Your task to perform on an android device: open app "Facebook Lite" (install if not already installed) Image 0: 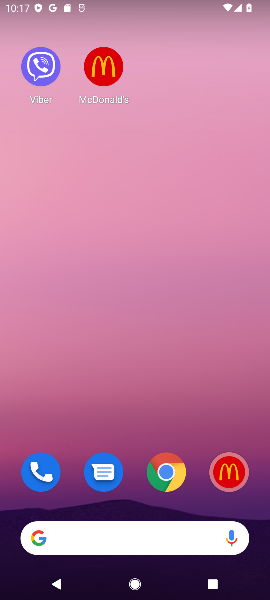
Step 0: drag from (124, 464) to (100, 0)
Your task to perform on an android device: open app "Facebook Lite" (install if not already installed) Image 1: 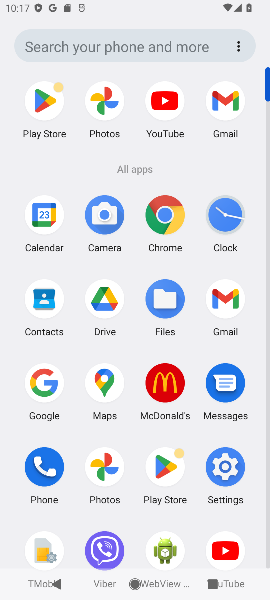
Step 1: click (48, 105)
Your task to perform on an android device: open app "Facebook Lite" (install if not already installed) Image 2: 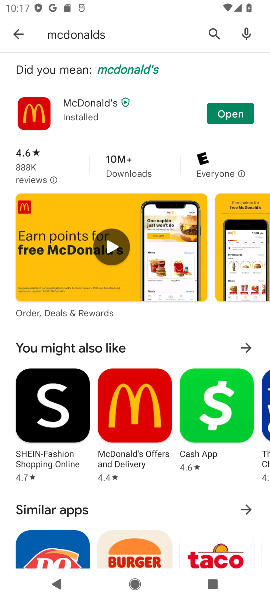
Step 2: click (116, 33)
Your task to perform on an android device: open app "Facebook Lite" (install if not already installed) Image 3: 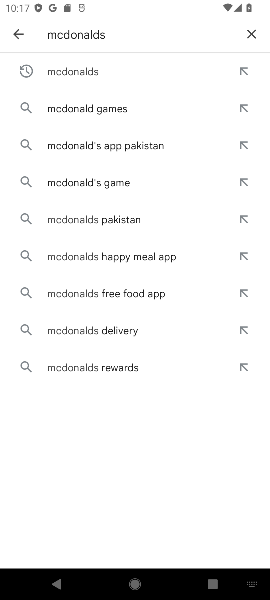
Step 3: click (251, 32)
Your task to perform on an android device: open app "Facebook Lite" (install if not already installed) Image 4: 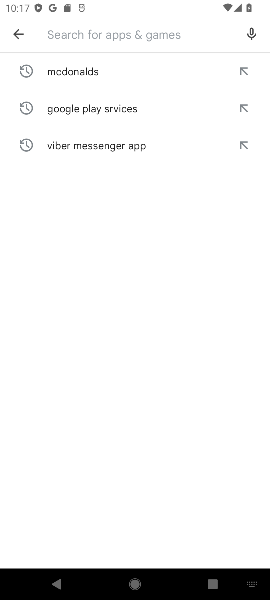
Step 4: type "facebook lite"
Your task to perform on an android device: open app "Facebook Lite" (install if not already installed) Image 5: 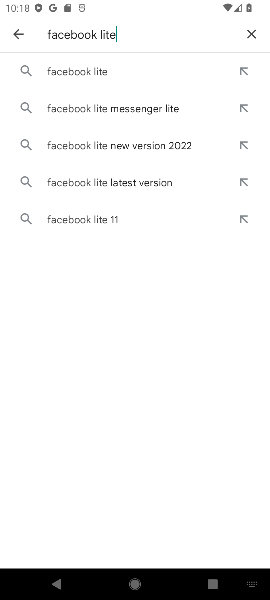
Step 5: click (67, 61)
Your task to perform on an android device: open app "Facebook Lite" (install if not already installed) Image 6: 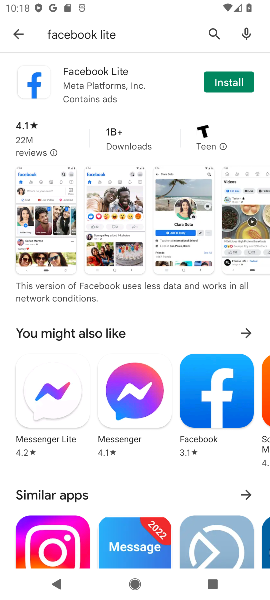
Step 6: click (233, 85)
Your task to perform on an android device: open app "Facebook Lite" (install if not already installed) Image 7: 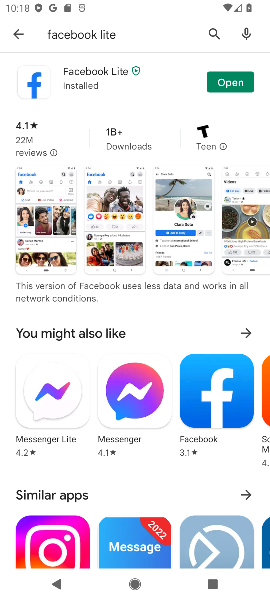
Step 7: click (227, 85)
Your task to perform on an android device: open app "Facebook Lite" (install if not already installed) Image 8: 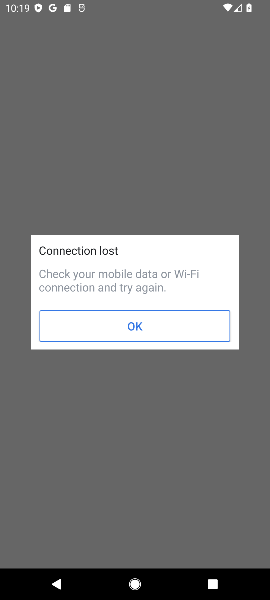
Step 8: click (165, 321)
Your task to perform on an android device: open app "Facebook Lite" (install if not already installed) Image 9: 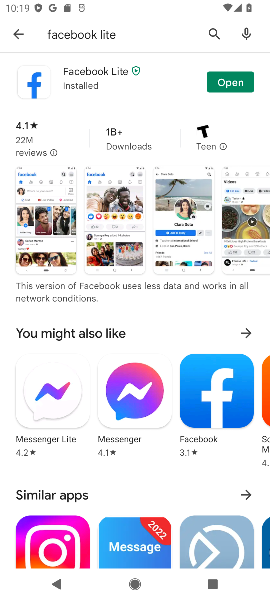
Step 9: task complete